Your task to perform on an android device: open a bookmark in the chrome app Image 0: 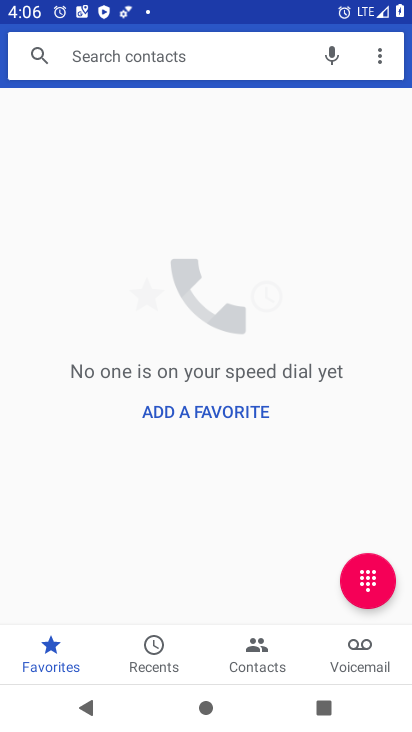
Step 0: press home button
Your task to perform on an android device: open a bookmark in the chrome app Image 1: 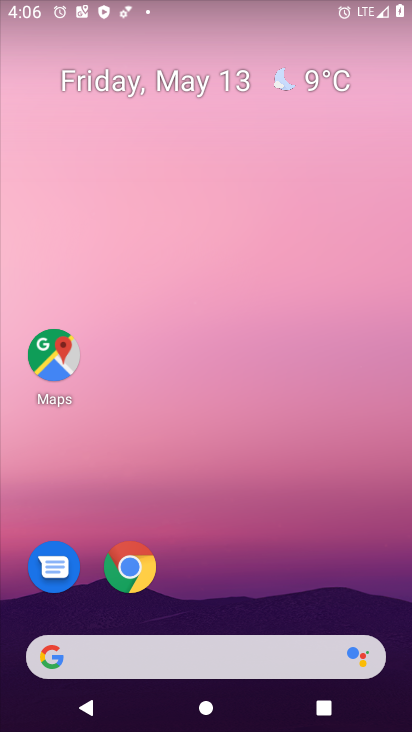
Step 1: click (127, 571)
Your task to perform on an android device: open a bookmark in the chrome app Image 2: 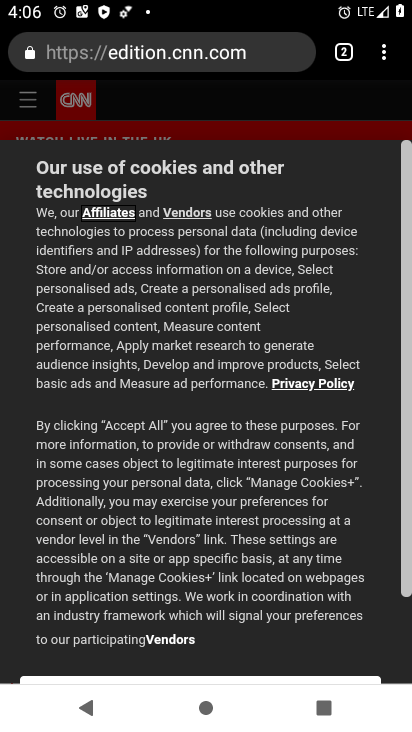
Step 2: click (386, 59)
Your task to perform on an android device: open a bookmark in the chrome app Image 3: 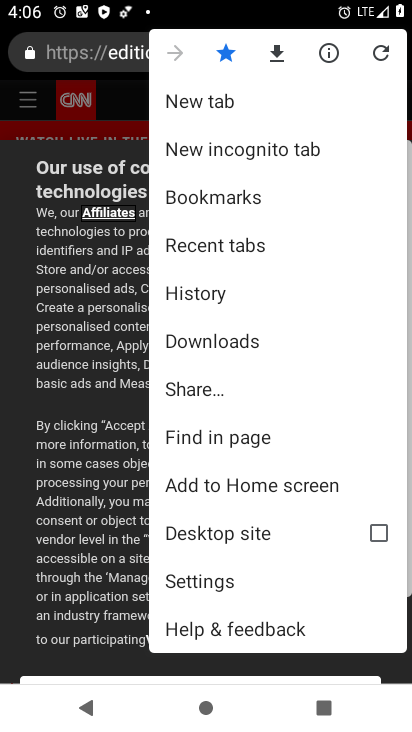
Step 3: click (222, 203)
Your task to perform on an android device: open a bookmark in the chrome app Image 4: 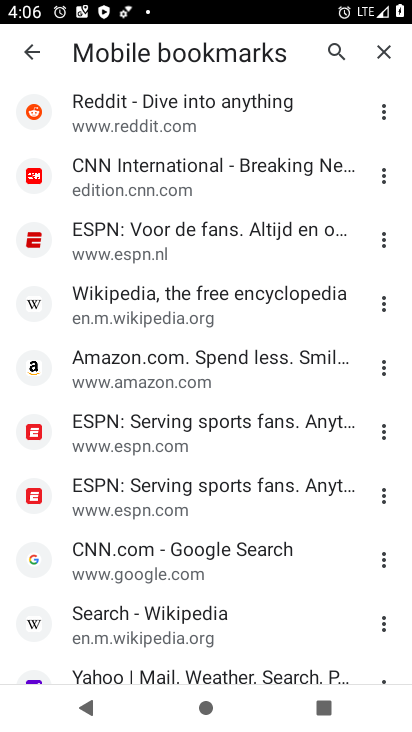
Step 4: click (114, 177)
Your task to perform on an android device: open a bookmark in the chrome app Image 5: 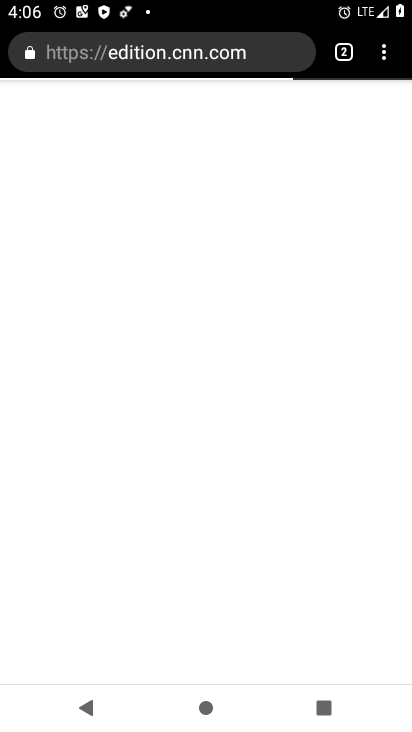
Step 5: task complete